Your task to perform on an android device: Go to Yahoo.com Image 0: 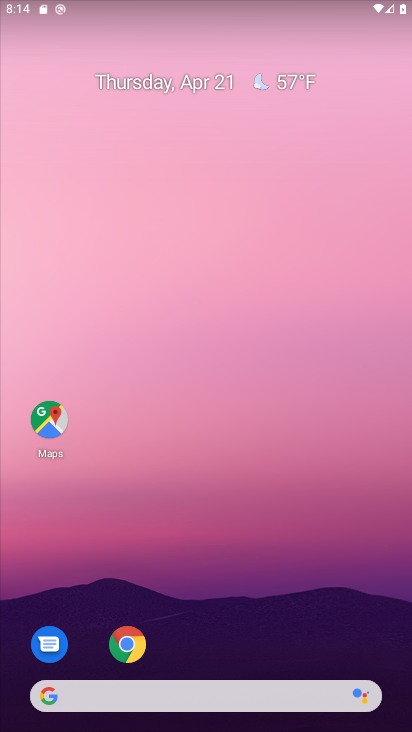
Step 0: click (136, 647)
Your task to perform on an android device: Go to Yahoo.com Image 1: 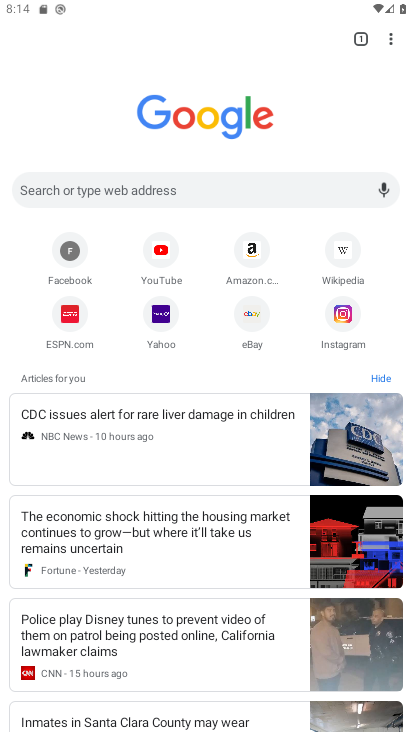
Step 1: click (159, 316)
Your task to perform on an android device: Go to Yahoo.com Image 2: 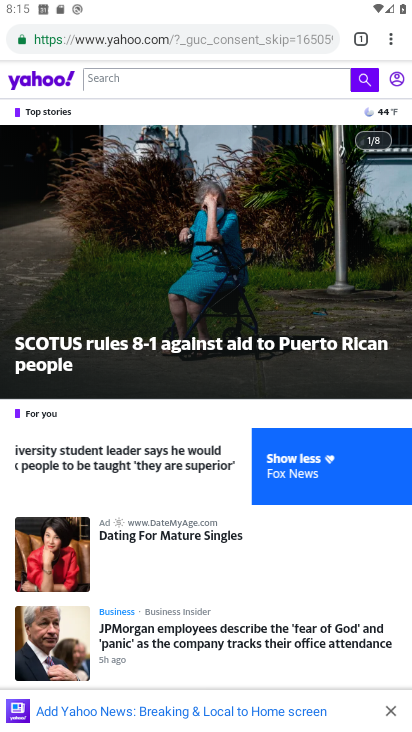
Step 2: task complete